Your task to perform on an android device: What's on my calendar tomorrow? Image 0: 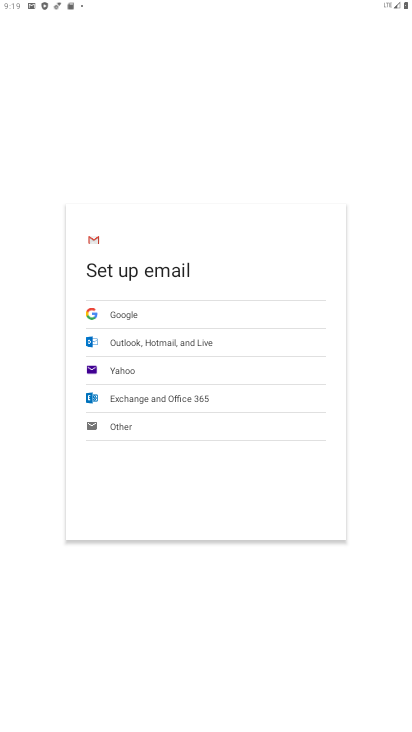
Step 0: drag from (174, 680) to (198, 197)
Your task to perform on an android device: What's on my calendar tomorrow? Image 1: 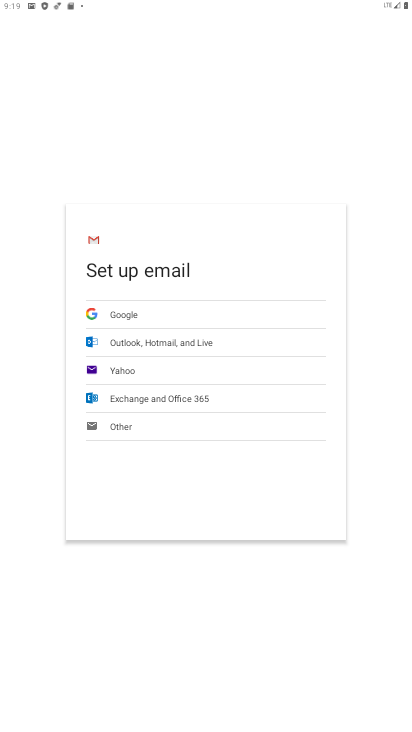
Step 1: press home button
Your task to perform on an android device: What's on my calendar tomorrow? Image 2: 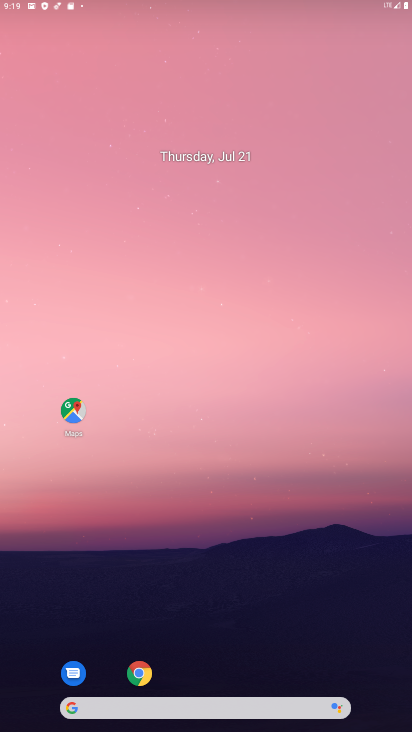
Step 2: drag from (222, 646) to (330, 36)
Your task to perform on an android device: What's on my calendar tomorrow? Image 3: 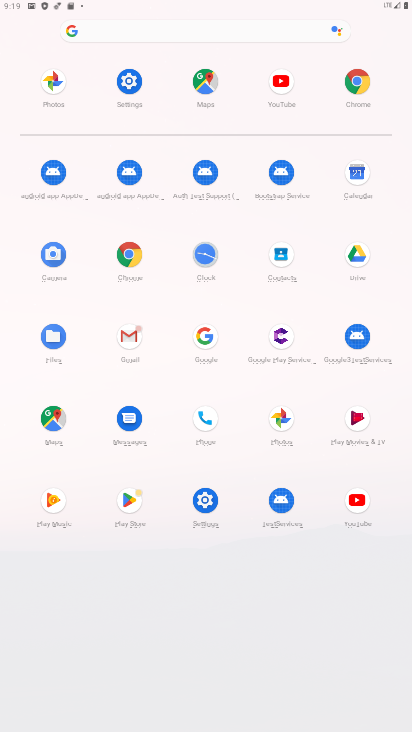
Step 3: click (353, 173)
Your task to perform on an android device: What's on my calendar tomorrow? Image 4: 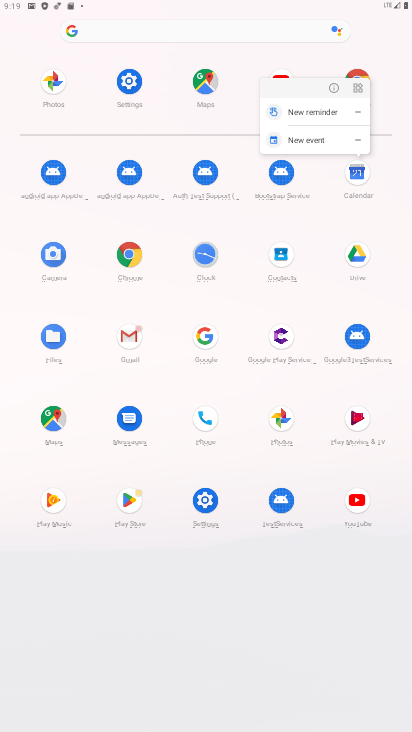
Step 4: click (334, 83)
Your task to perform on an android device: What's on my calendar tomorrow? Image 5: 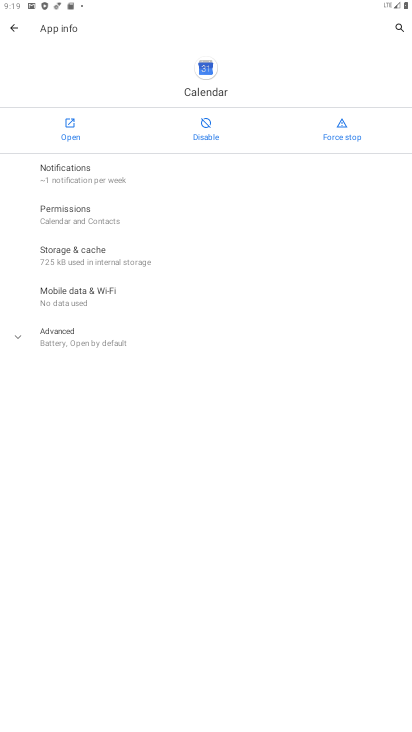
Step 5: click (70, 122)
Your task to perform on an android device: What's on my calendar tomorrow? Image 6: 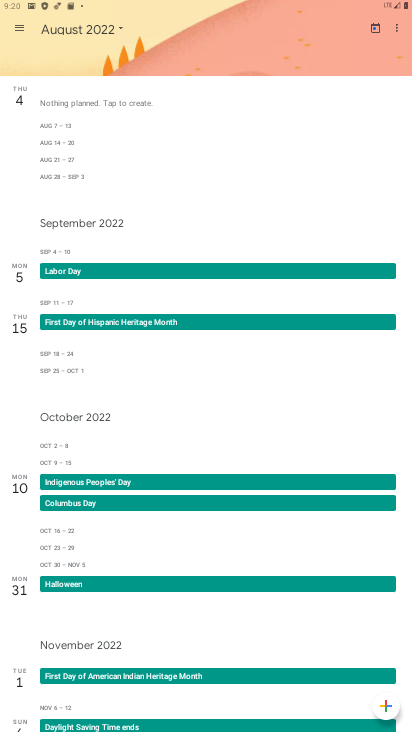
Step 6: click (76, 27)
Your task to perform on an android device: What's on my calendar tomorrow? Image 7: 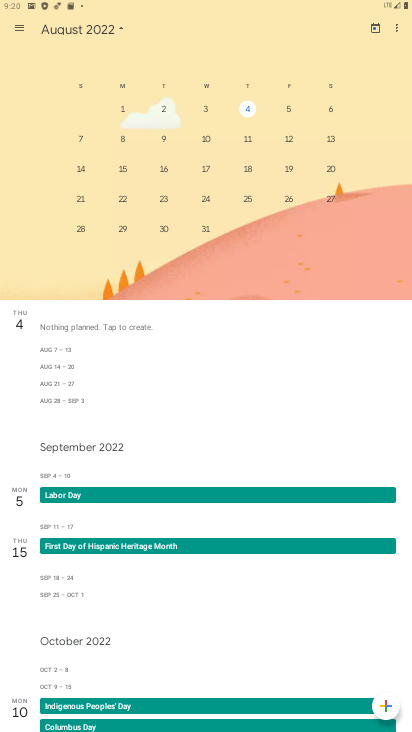
Step 7: click (369, 26)
Your task to perform on an android device: What's on my calendar tomorrow? Image 8: 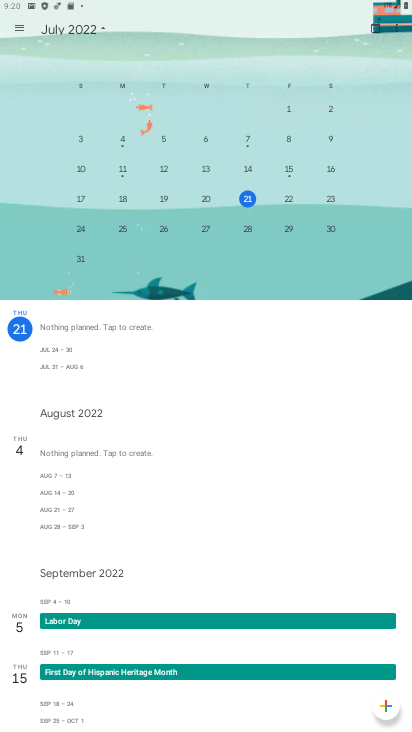
Step 8: click (281, 195)
Your task to perform on an android device: What's on my calendar tomorrow? Image 9: 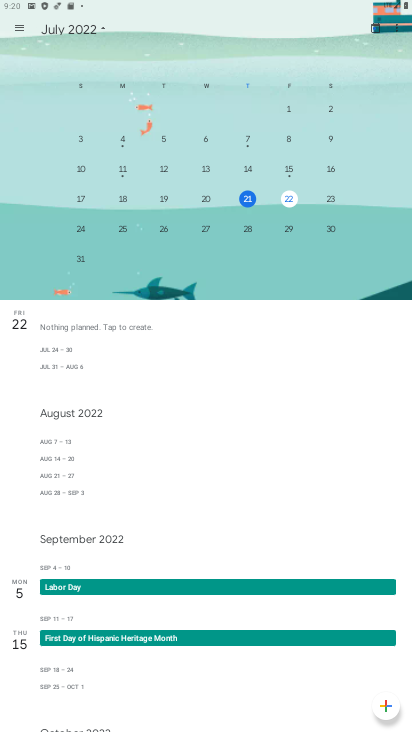
Step 9: task complete